Your task to perform on an android device: Open the calendar and show me this week's events? Image 0: 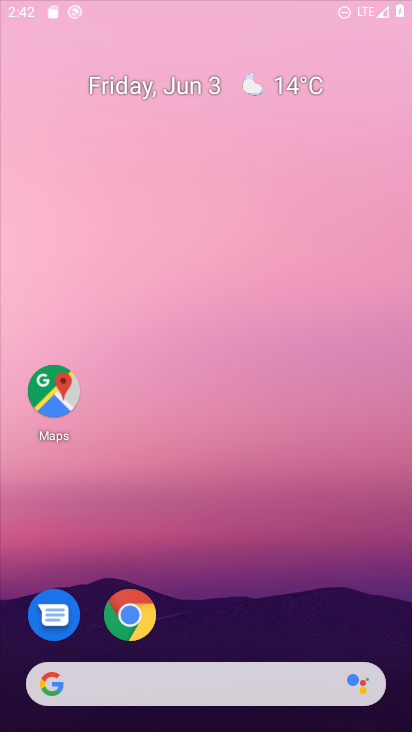
Step 0: drag from (195, 605) to (170, 42)
Your task to perform on an android device: Open the calendar and show me this week's events? Image 1: 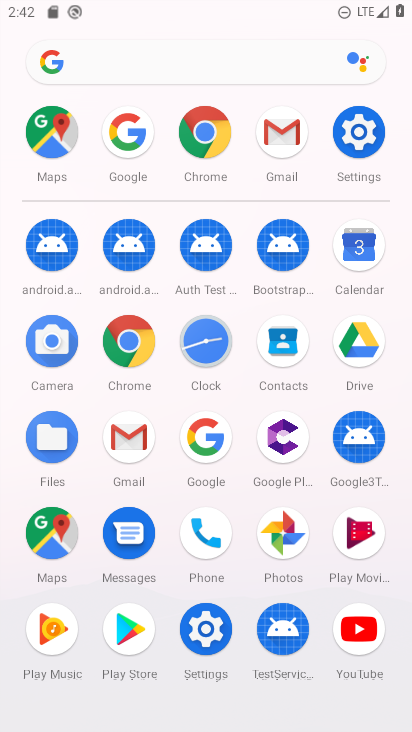
Step 1: click (122, 438)
Your task to perform on an android device: Open the calendar and show me this week's events? Image 2: 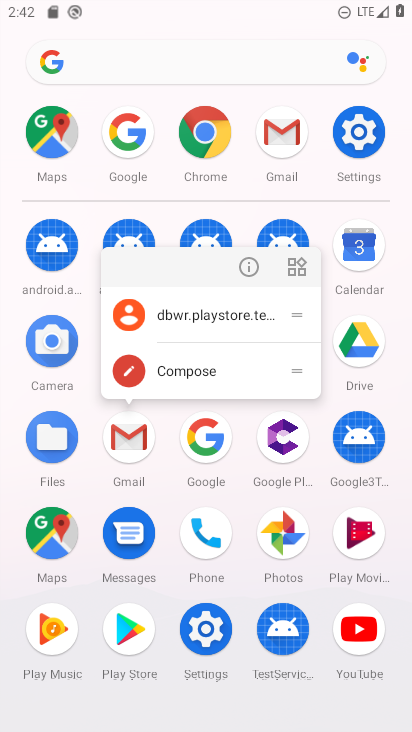
Step 2: click (350, 245)
Your task to perform on an android device: Open the calendar and show me this week's events? Image 3: 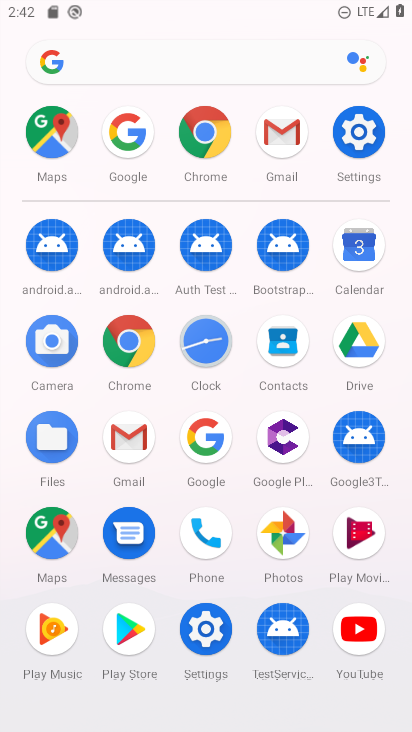
Step 3: click (350, 243)
Your task to perform on an android device: Open the calendar and show me this week's events? Image 4: 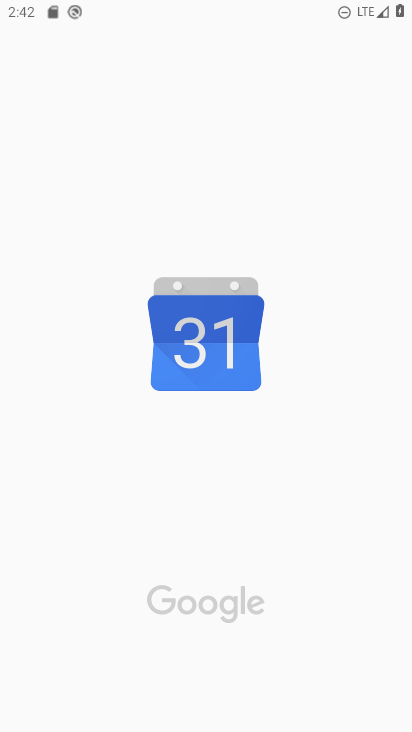
Step 4: click (217, 180)
Your task to perform on an android device: Open the calendar and show me this week's events? Image 5: 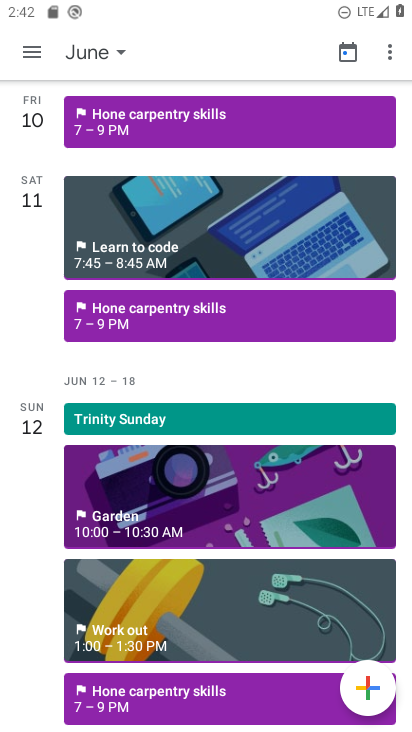
Step 5: drag from (261, 559) to (228, 140)
Your task to perform on an android device: Open the calendar and show me this week's events? Image 6: 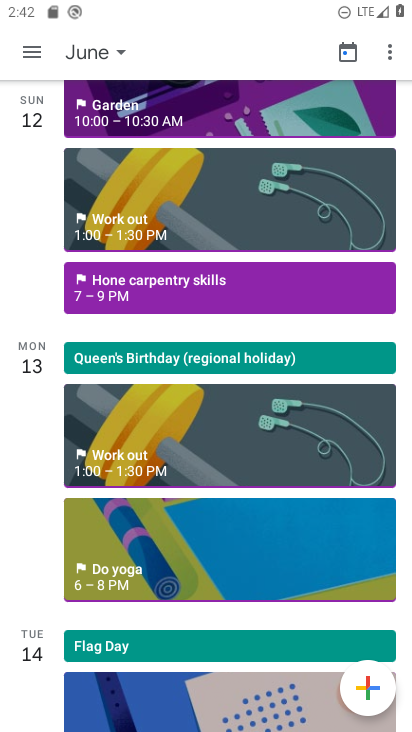
Step 6: click (91, 51)
Your task to perform on an android device: Open the calendar and show me this week's events? Image 7: 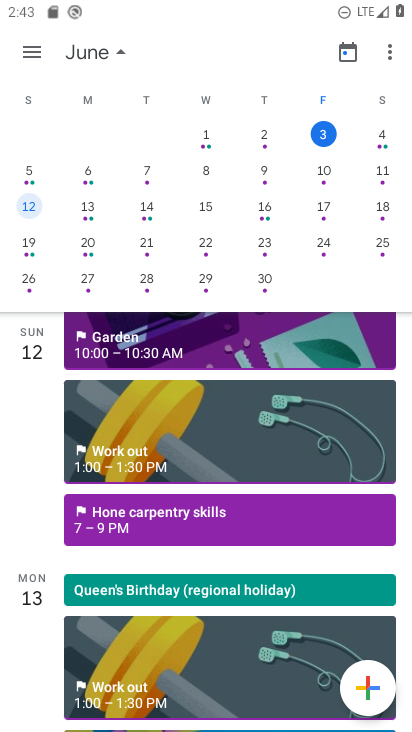
Step 7: click (377, 143)
Your task to perform on an android device: Open the calendar and show me this week's events? Image 8: 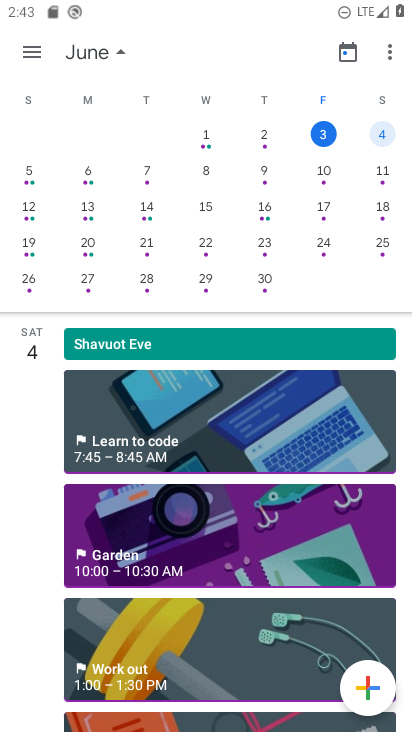
Step 8: task complete